Your task to perform on an android device: Open Chrome and go to the settings page Image 0: 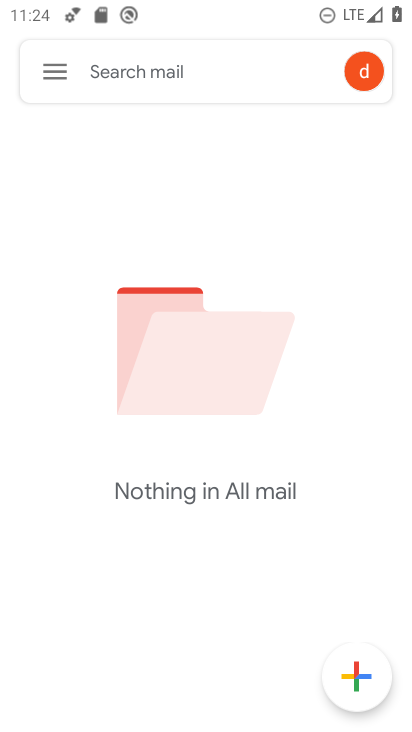
Step 0: press home button
Your task to perform on an android device: Open Chrome and go to the settings page Image 1: 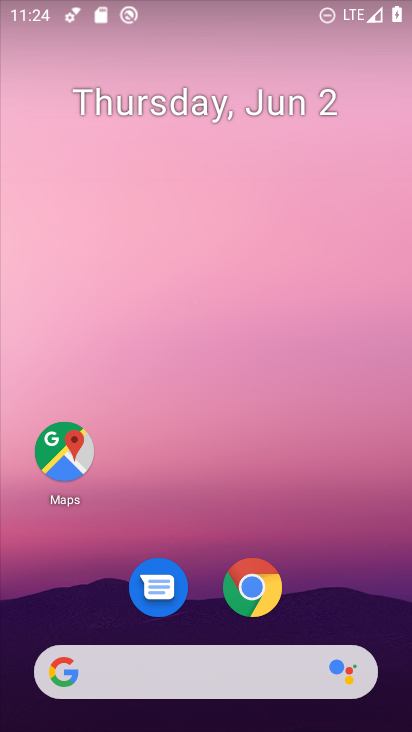
Step 1: click (260, 592)
Your task to perform on an android device: Open Chrome and go to the settings page Image 2: 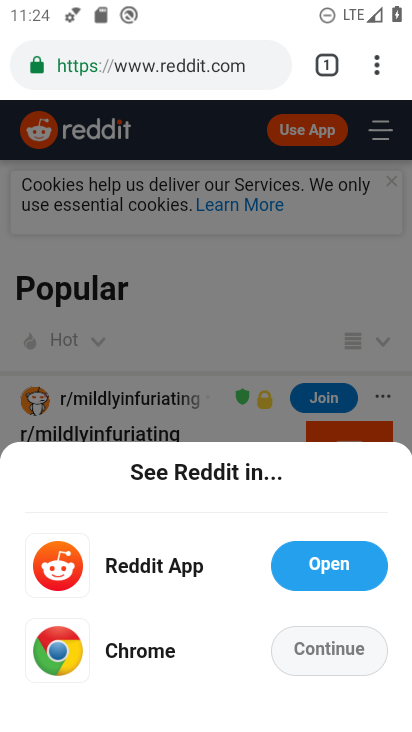
Step 2: click (383, 74)
Your task to perform on an android device: Open Chrome and go to the settings page Image 3: 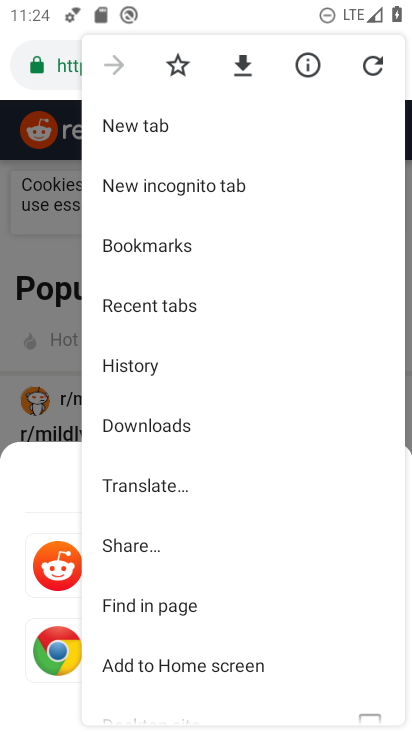
Step 3: drag from (235, 640) to (196, 271)
Your task to perform on an android device: Open Chrome and go to the settings page Image 4: 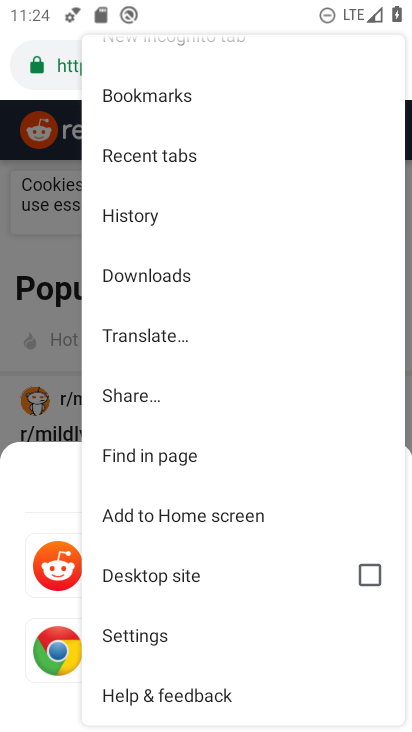
Step 4: click (183, 634)
Your task to perform on an android device: Open Chrome and go to the settings page Image 5: 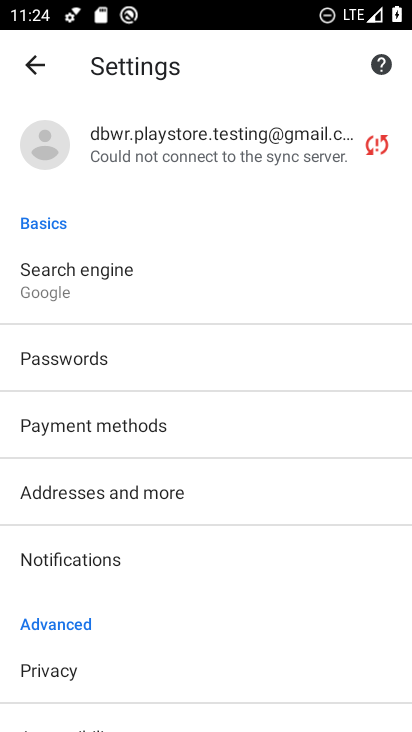
Step 5: task complete